Your task to perform on an android device: turn on showing notifications on the lock screen Image 0: 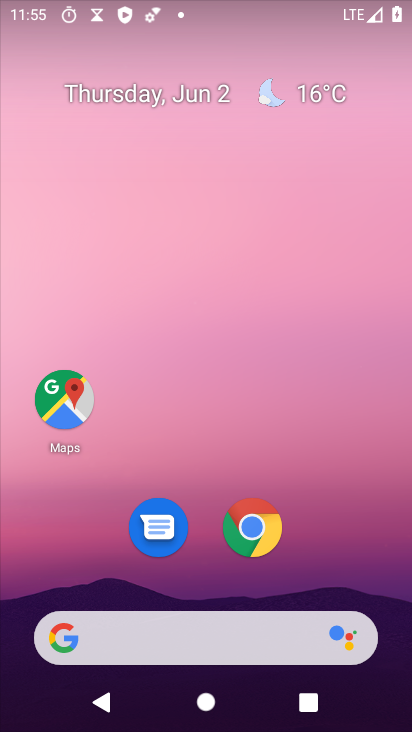
Step 0: drag from (135, 625) to (100, 52)
Your task to perform on an android device: turn on showing notifications on the lock screen Image 1: 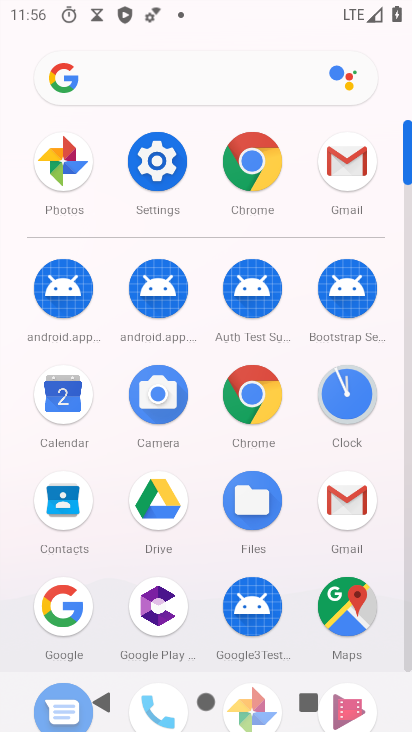
Step 1: click (158, 164)
Your task to perform on an android device: turn on showing notifications on the lock screen Image 2: 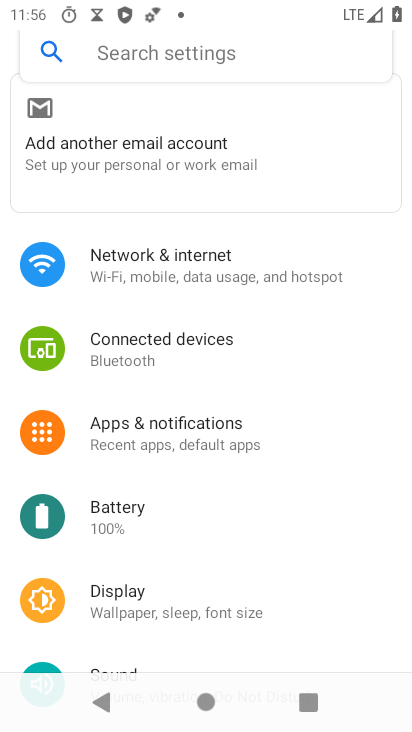
Step 2: click (169, 433)
Your task to perform on an android device: turn on showing notifications on the lock screen Image 3: 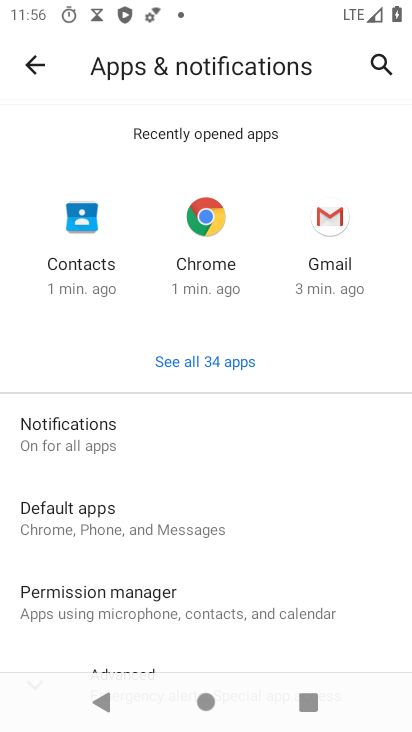
Step 3: drag from (129, 567) to (83, 343)
Your task to perform on an android device: turn on showing notifications on the lock screen Image 4: 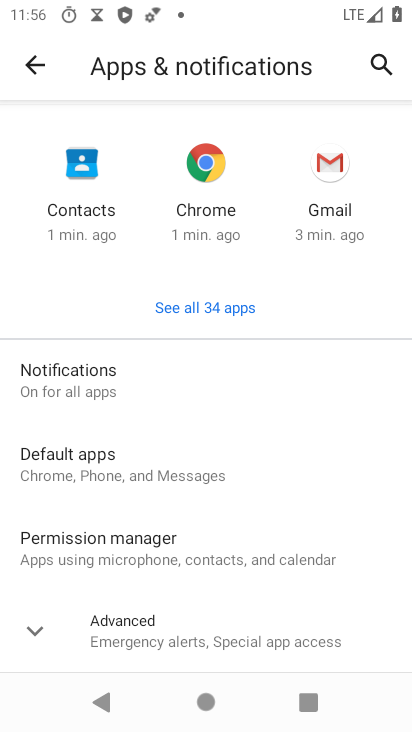
Step 4: click (90, 395)
Your task to perform on an android device: turn on showing notifications on the lock screen Image 5: 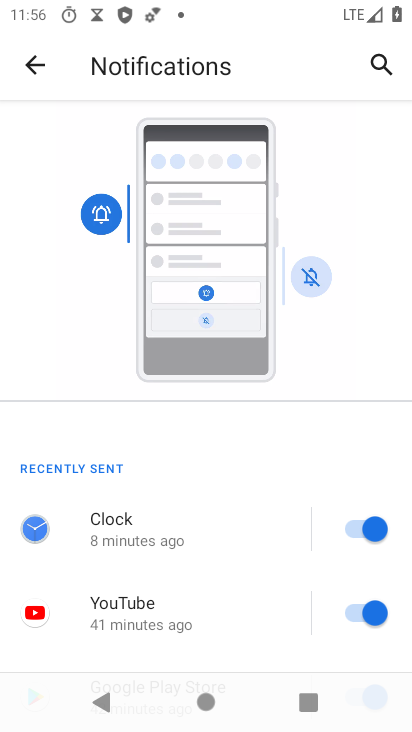
Step 5: drag from (126, 503) to (20, 6)
Your task to perform on an android device: turn on showing notifications on the lock screen Image 6: 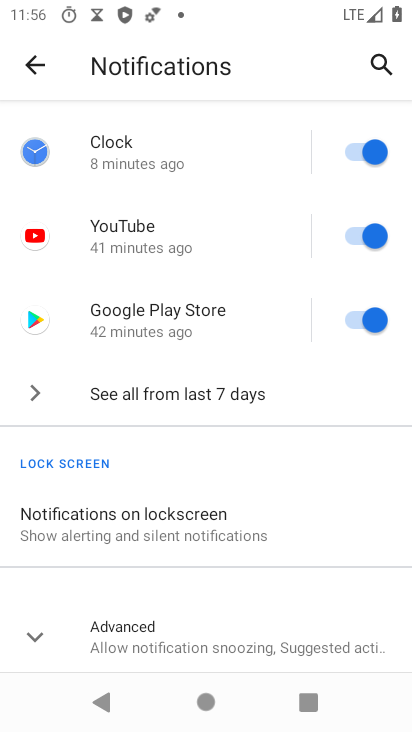
Step 6: click (143, 528)
Your task to perform on an android device: turn on showing notifications on the lock screen Image 7: 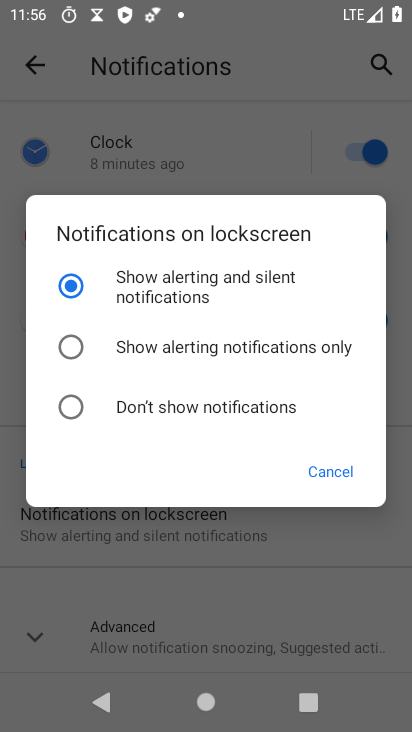
Step 7: click (135, 308)
Your task to perform on an android device: turn on showing notifications on the lock screen Image 8: 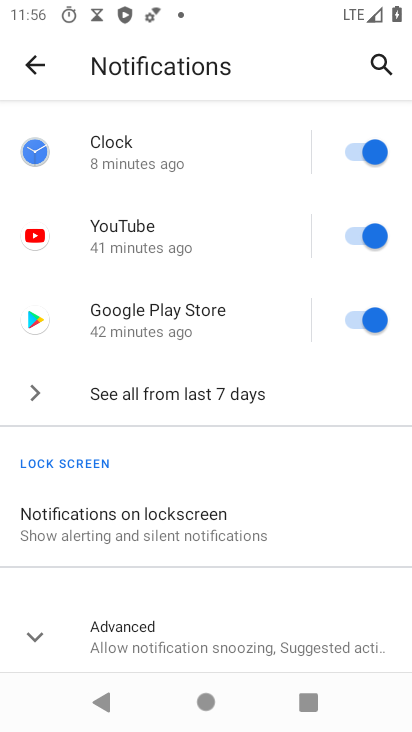
Step 8: task complete